Your task to perform on an android device: When is my next meeting? Image 0: 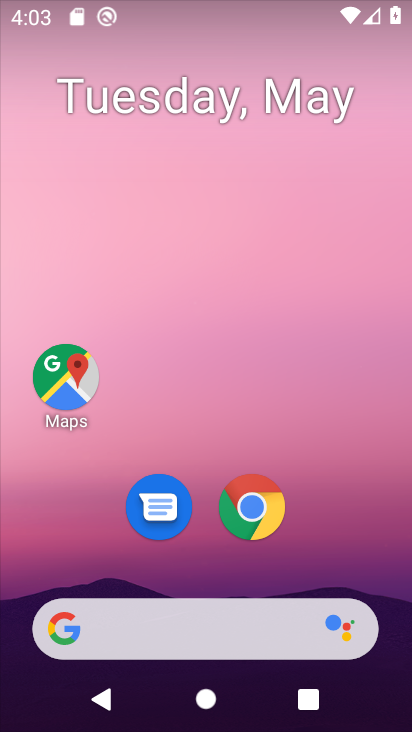
Step 0: drag from (199, 551) to (306, 43)
Your task to perform on an android device: When is my next meeting? Image 1: 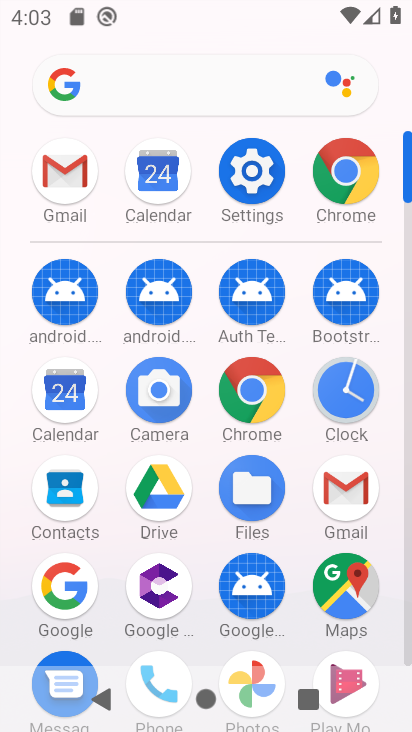
Step 1: click (53, 401)
Your task to perform on an android device: When is my next meeting? Image 2: 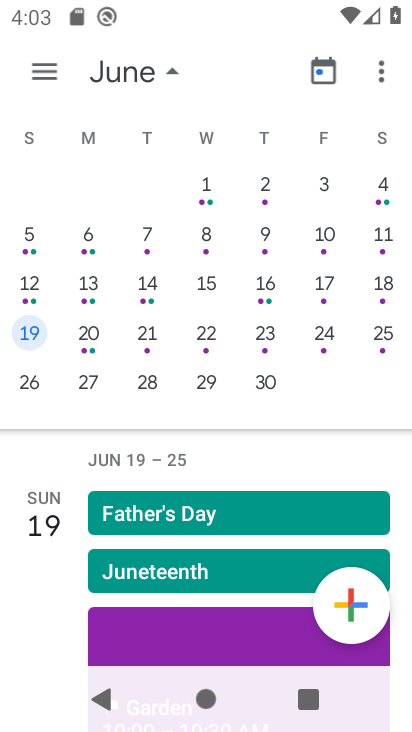
Step 2: drag from (66, 270) to (388, 244)
Your task to perform on an android device: When is my next meeting? Image 3: 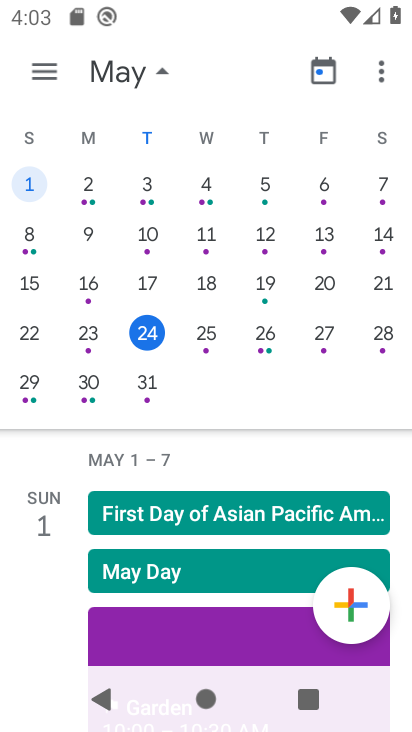
Step 3: click (139, 332)
Your task to perform on an android device: When is my next meeting? Image 4: 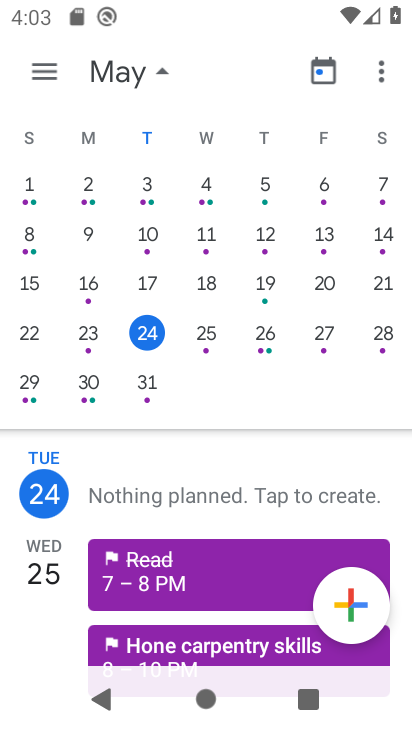
Step 4: task complete